Your task to perform on an android device: search for starred emails in the gmail app Image 0: 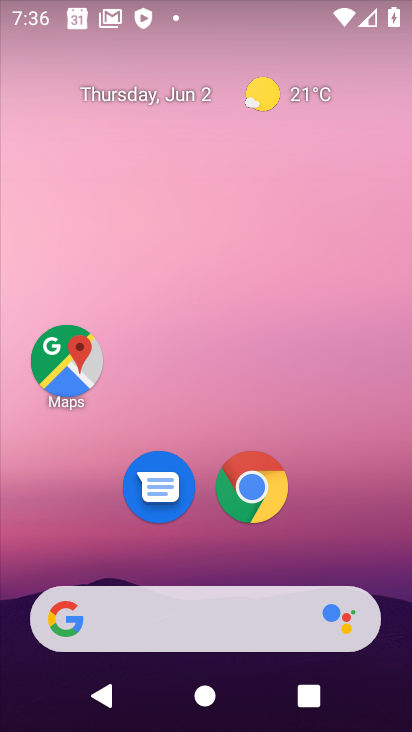
Step 0: drag from (141, 535) to (245, 118)
Your task to perform on an android device: search for starred emails in the gmail app Image 1: 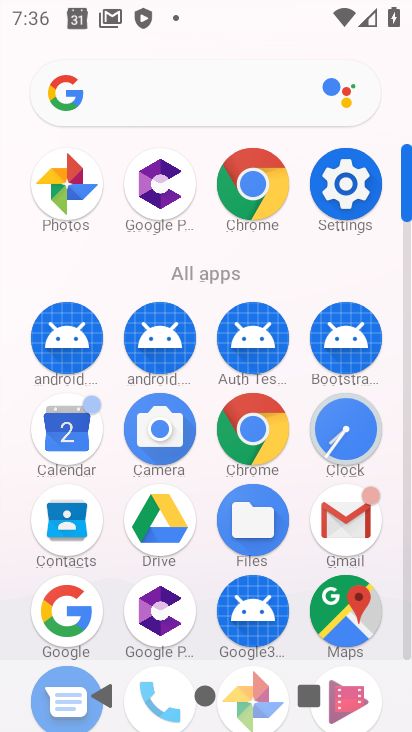
Step 1: click (364, 528)
Your task to perform on an android device: search for starred emails in the gmail app Image 2: 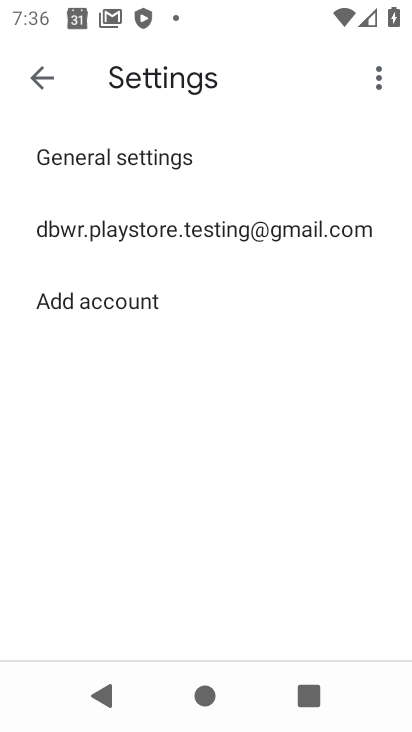
Step 2: click (49, 76)
Your task to perform on an android device: search for starred emails in the gmail app Image 3: 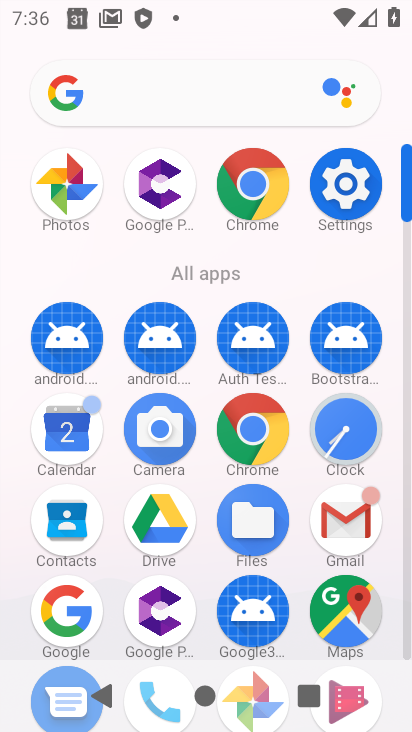
Step 3: click (356, 519)
Your task to perform on an android device: search for starred emails in the gmail app Image 4: 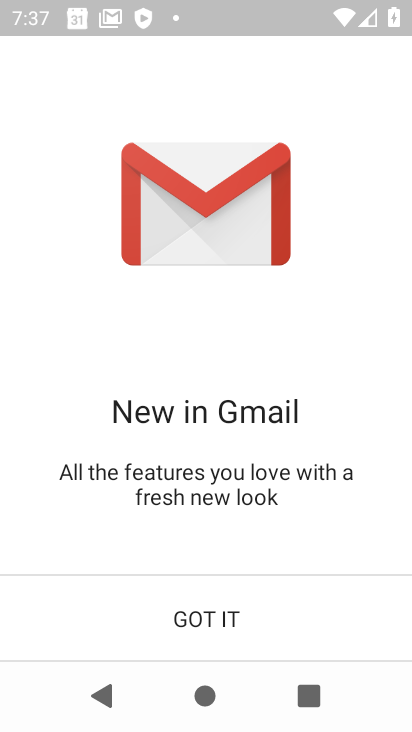
Step 4: click (237, 614)
Your task to perform on an android device: search for starred emails in the gmail app Image 5: 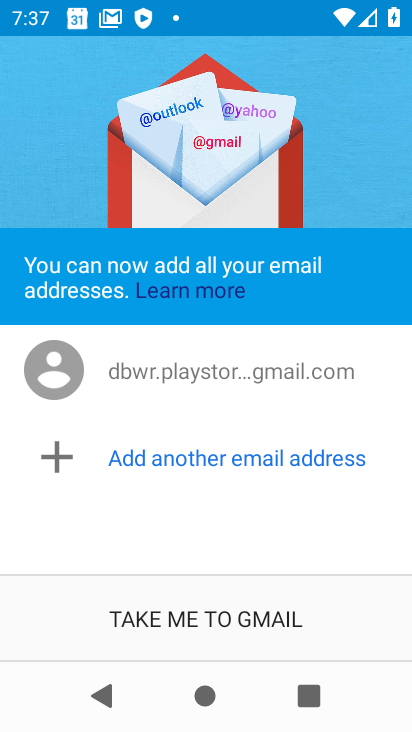
Step 5: click (212, 642)
Your task to perform on an android device: search for starred emails in the gmail app Image 6: 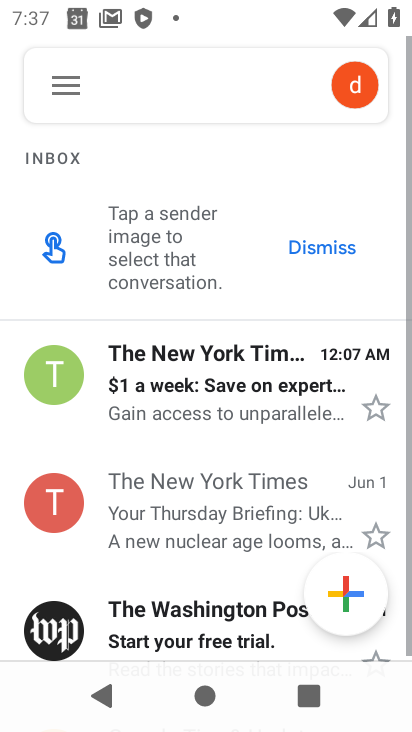
Step 6: click (58, 88)
Your task to perform on an android device: search for starred emails in the gmail app Image 7: 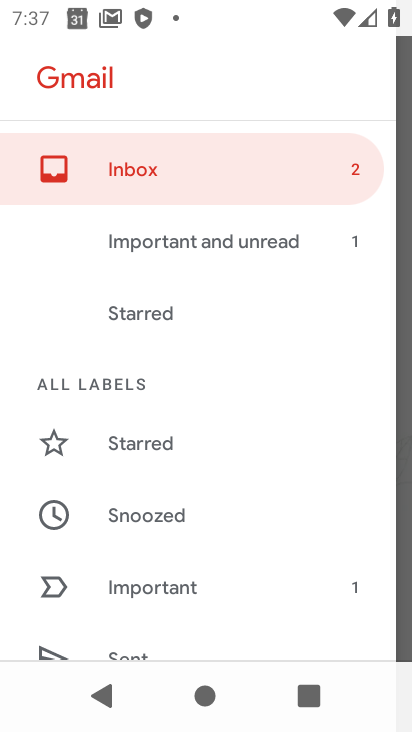
Step 7: click (150, 447)
Your task to perform on an android device: search for starred emails in the gmail app Image 8: 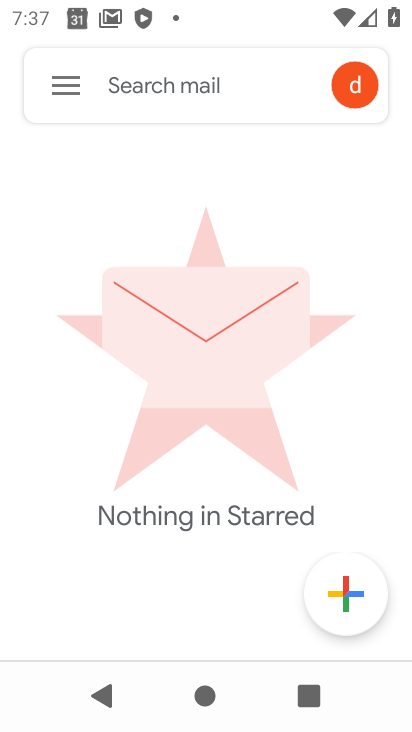
Step 8: task complete